Your task to perform on an android device: Open privacy settings Image 0: 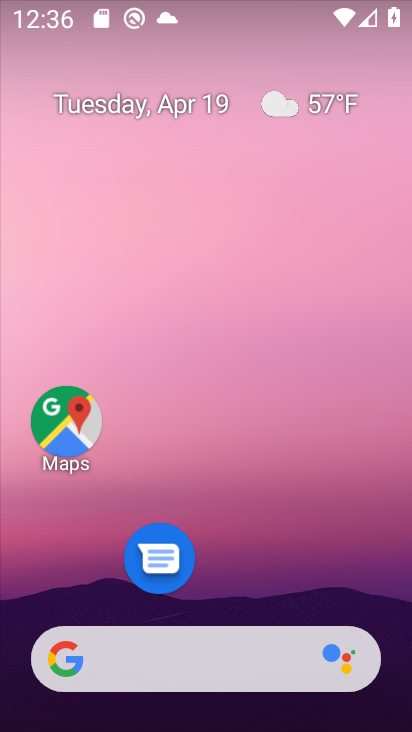
Step 0: drag from (269, 575) to (182, 82)
Your task to perform on an android device: Open privacy settings Image 1: 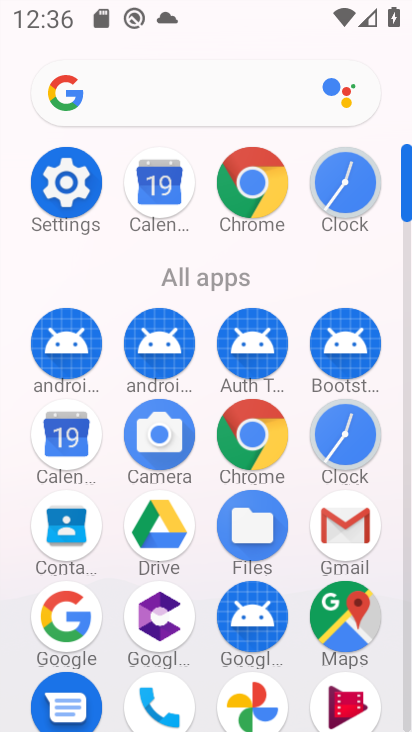
Step 1: click (263, 186)
Your task to perform on an android device: Open privacy settings Image 2: 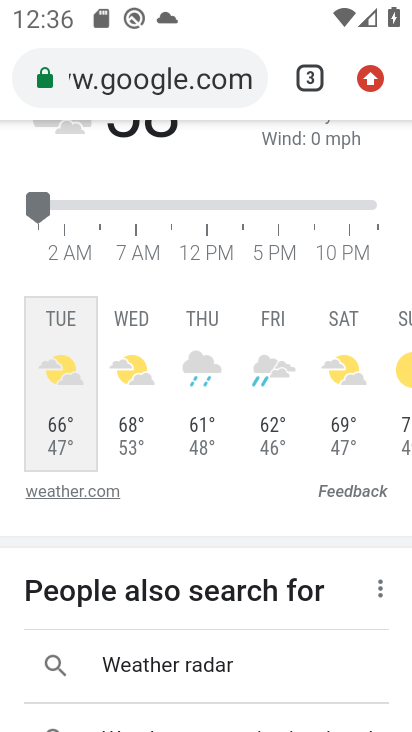
Step 2: click (368, 80)
Your task to perform on an android device: Open privacy settings Image 3: 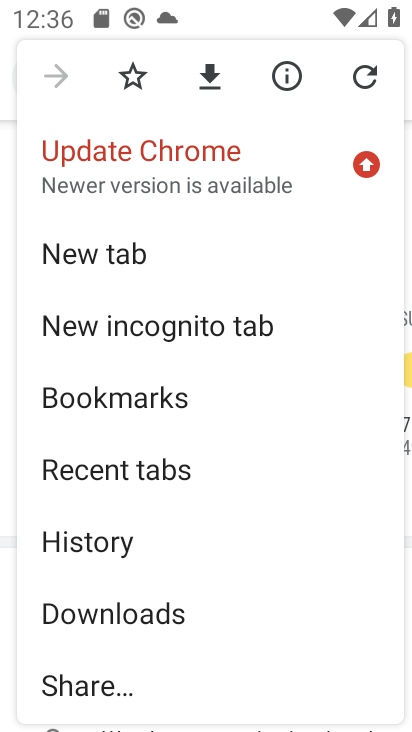
Step 3: drag from (131, 638) to (133, 262)
Your task to perform on an android device: Open privacy settings Image 4: 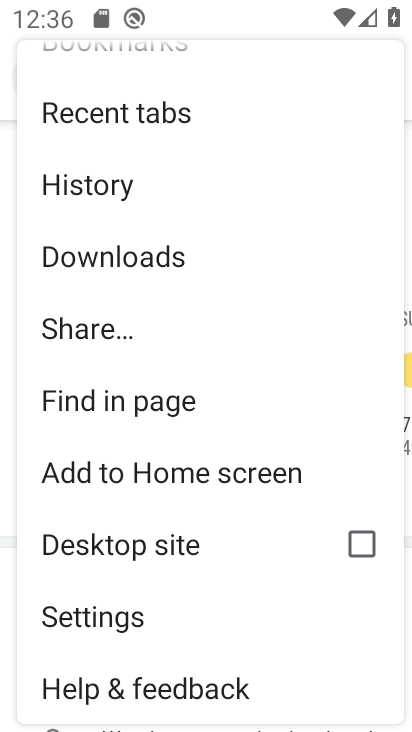
Step 4: click (81, 619)
Your task to perform on an android device: Open privacy settings Image 5: 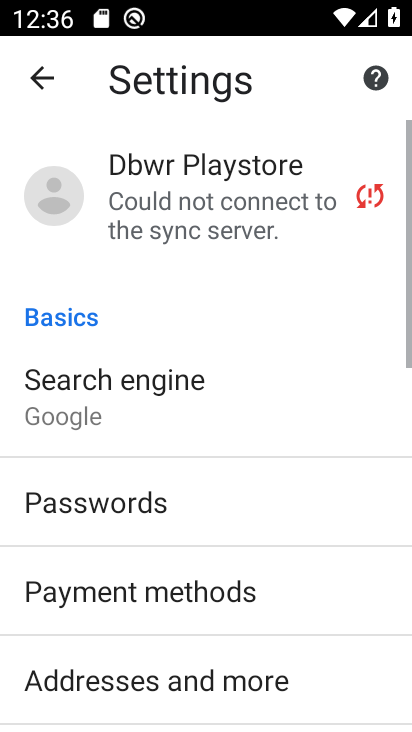
Step 5: drag from (96, 522) to (103, 182)
Your task to perform on an android device: Open privacy settings Image 6: 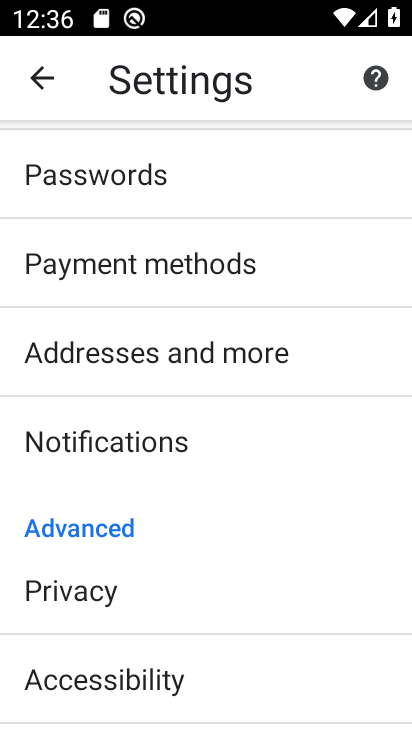
Step 6: click (42, 587)
Your task to perform on an android device: Open privacy settings Image 7: 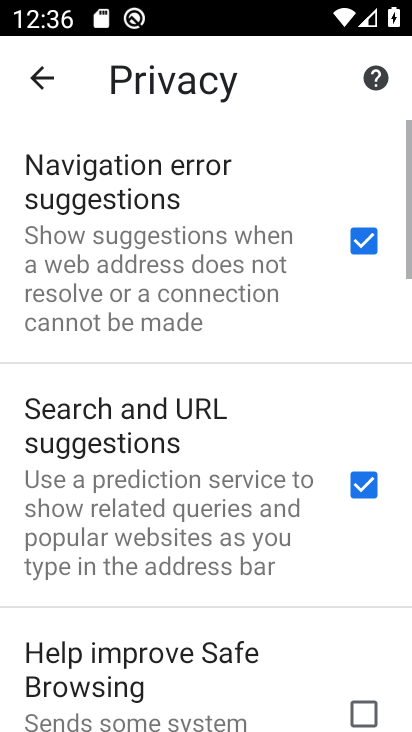
Step 7: task complete